Your task to perform on an android device: turn on priority inbox in the gmail app Image 0: 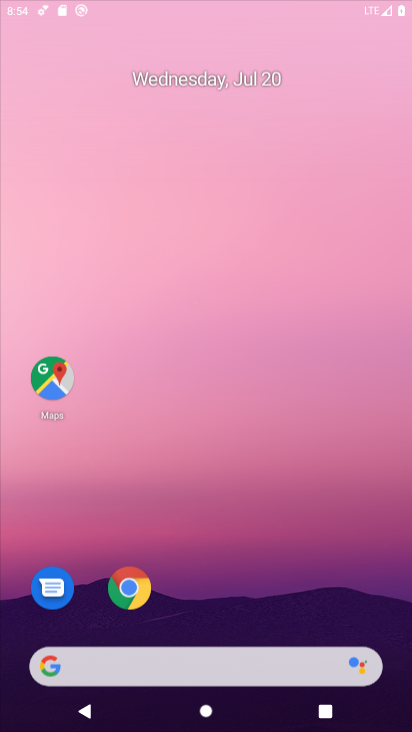
Step 0: press home button
Your task to perform on an android device: turn on priority inbox in the gmail app Image 1: 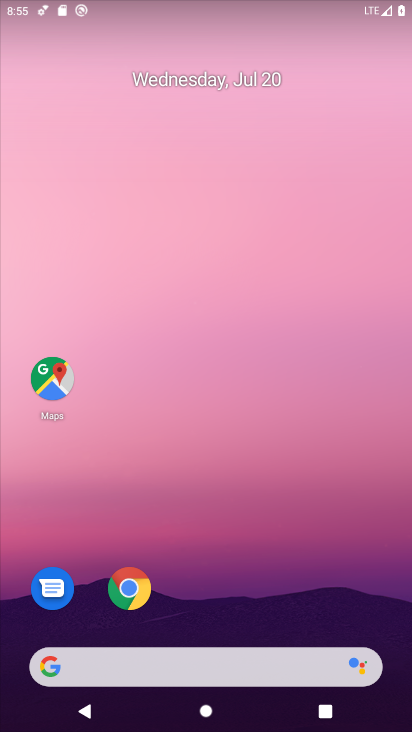
Step 1: drag from (208, 628) to (208, 2)
Your task to perform on an android device: turn on priority inbox in the gmail app Image 2: 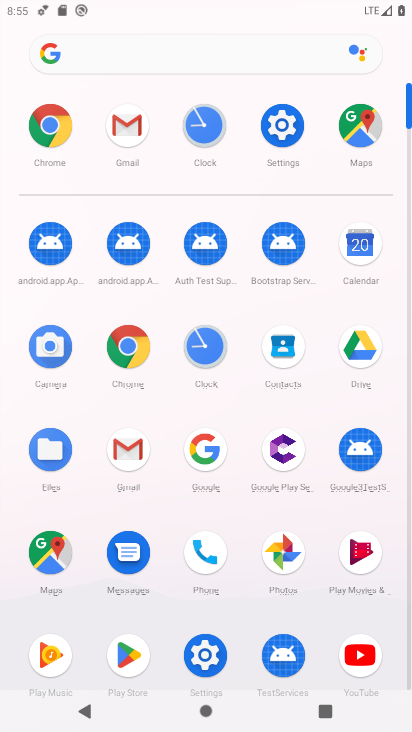
Step 2: click (119, 117)
Your task to perform on an android device: turn on priority inbox in the gmail app Image 3: 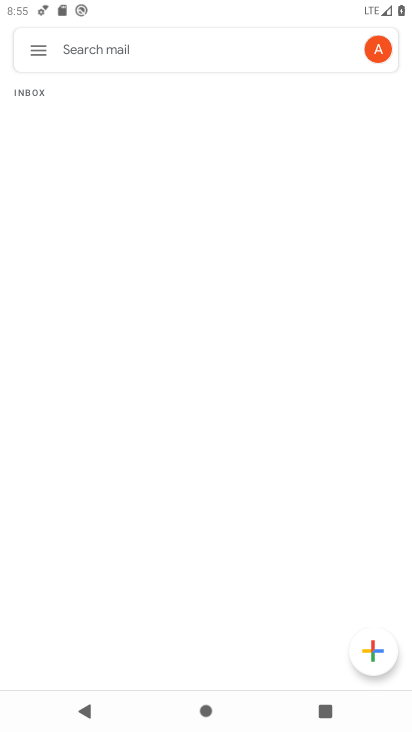
Step 3: click (42, 50)
Your task to perform on an android device: turn on priority inbox in the gmail app Image 4: 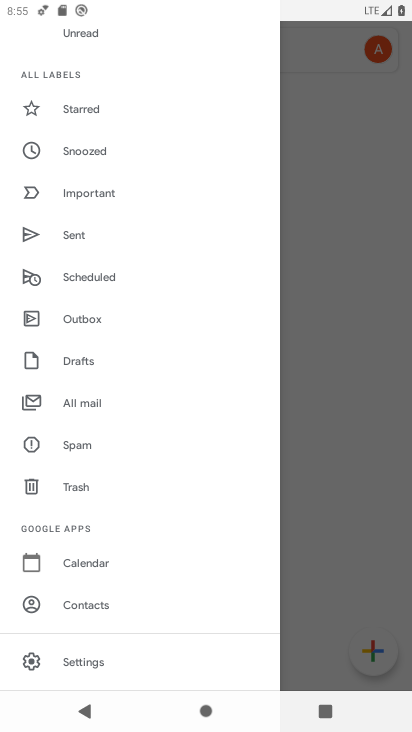
Step 4: click (106, 659)
Your task to perform on an android device: turn on priority inbox in the gmail app Image 5: 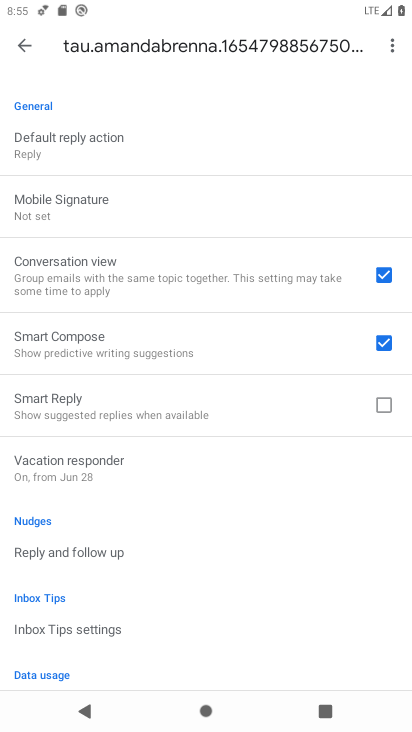
Step 5: drag from (130, 597) to (122, 731)
Your task to perform on an android device: turn on priority inbox in the gmail app Image 6: 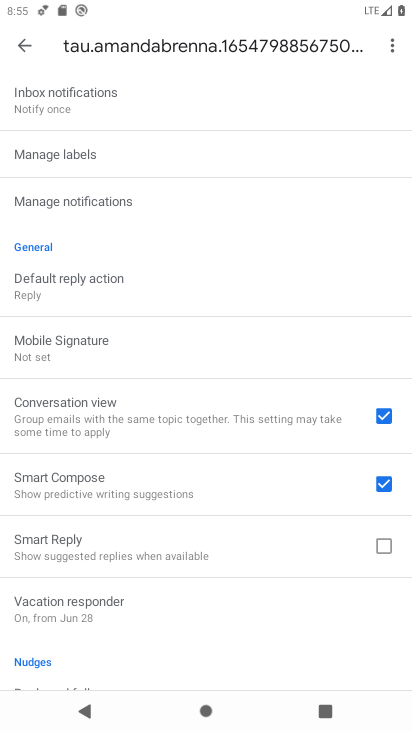
Step 6: drag from (150, 141) to (155, 512)
Your task to perform on an android device: turn on priority inbox in the gmail app Image 7: 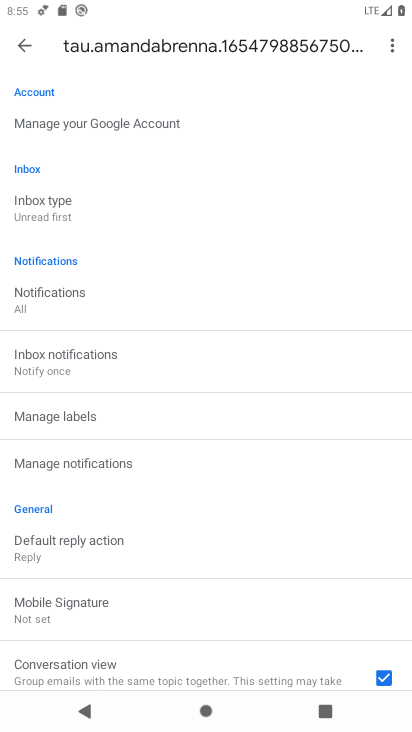
Step 7: click (73, 203)
Your task to perform on an android device: turn on priority inbox in the gmail app Image 8: 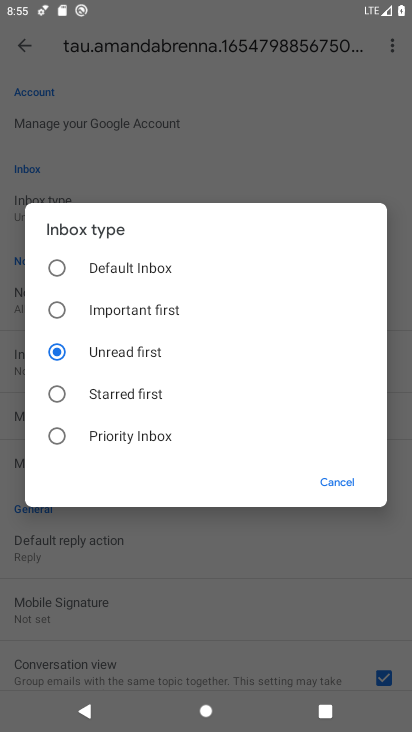
Step 8: click (54, 436)
Your task to perform on an android device: turn on priority inbox in the gmail app Image 9: 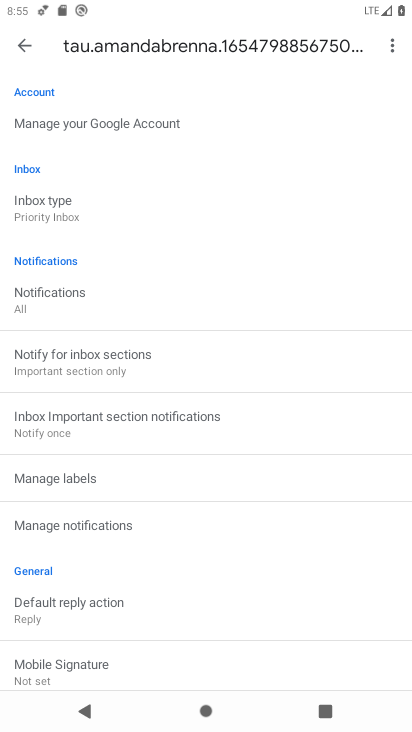
Step 9: task complete